Your task to perform on an android device: Go to Amazon Image 0: 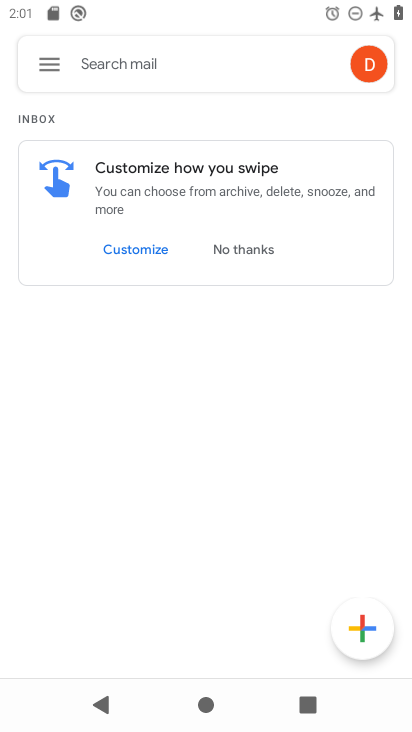
Step 0: press home button
Your task to perform on an android device: Go to Amazon Image 1: 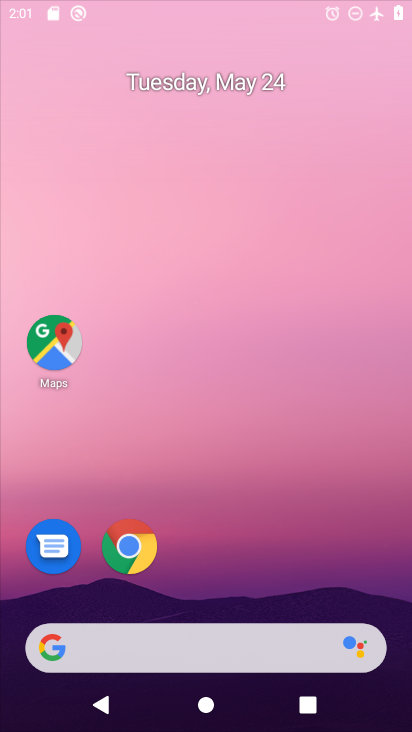
Step 1: drag from (160, 661) to (190, 37)
Your task to perform on an android device: Go to Amazon Image 2: 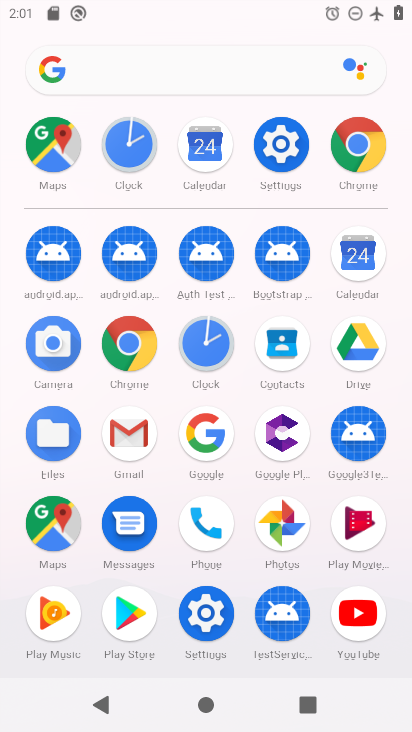
Step 2: click (128, 337)
Your task to perform on an android device: Go to Amazon Image 3: 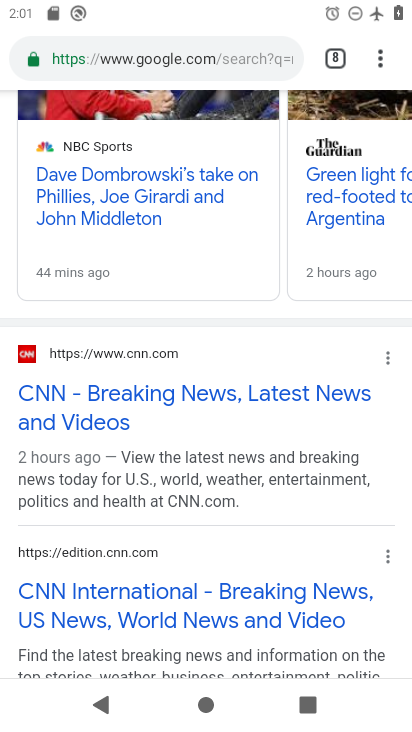
Step 3: drag from (377, 63) to (197, 127)
Your task to perform on an android device: Go to Amazon Image 4: 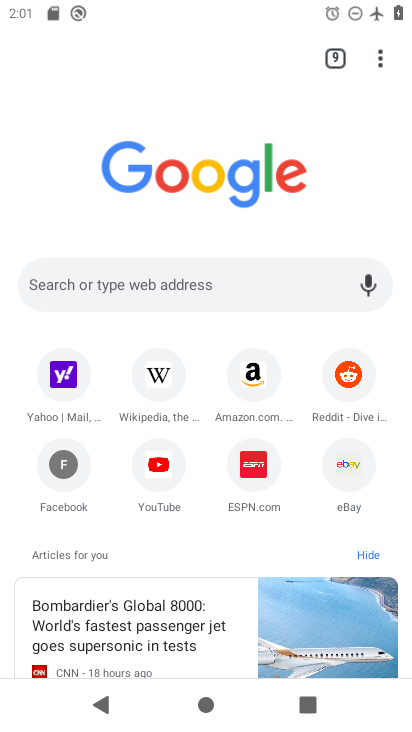
Step 4: click (241, 381)
Your task to perform on an android device: Go to Amazon Image 5: 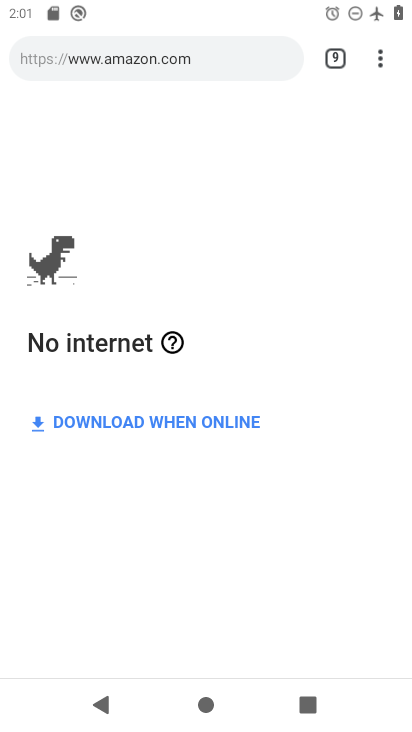
Step 5: task complete